Your task to perform on an android device: Open CNN.com Image 0: 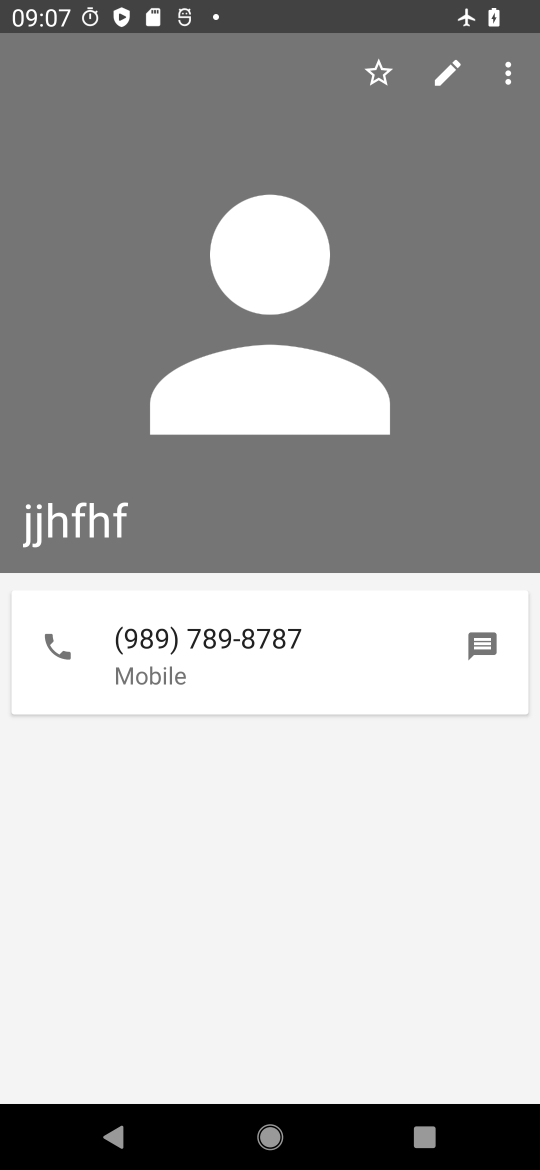
Step 0: press home button
Your task to perform on an android device: Open CNN.com Image 1: 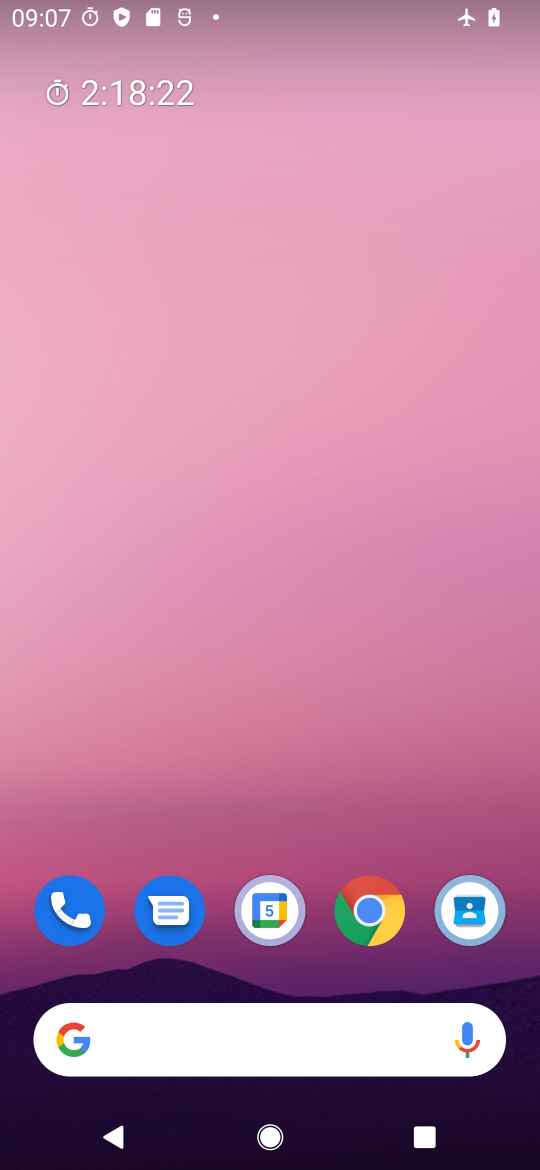
Step 1: drag from (324, 1022) to (490, 151)
Your task to perform on an android device: Open CNN.com Image 2: 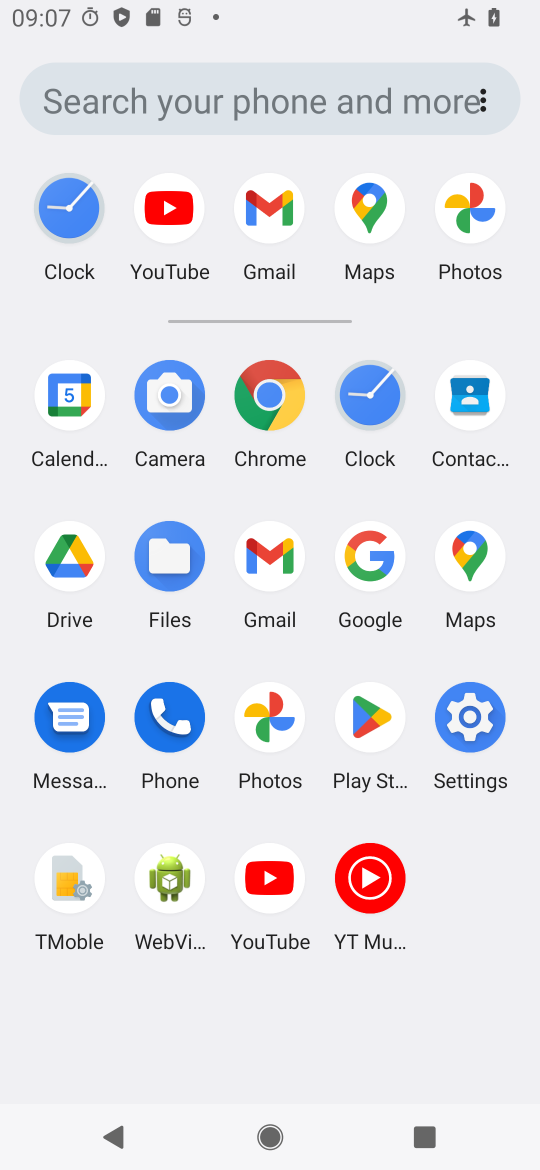
Step 2: click (250, 402)
Your task to perform on an android device: Open CNN.com Image 3: 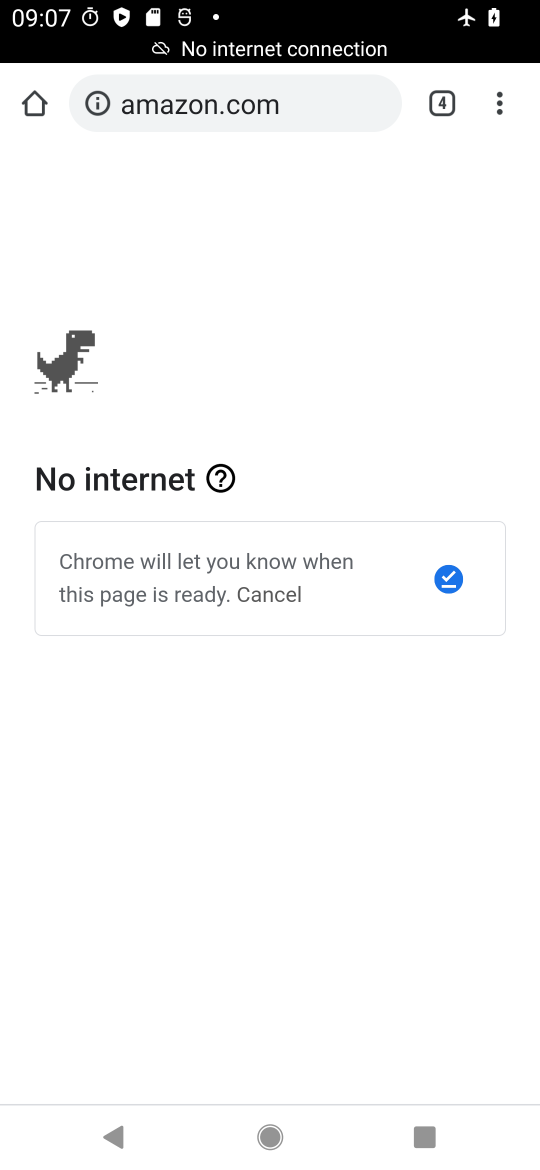
Step 3: click (456, 1)
Your task to perform on an android device: Open CNN.com Image 4: 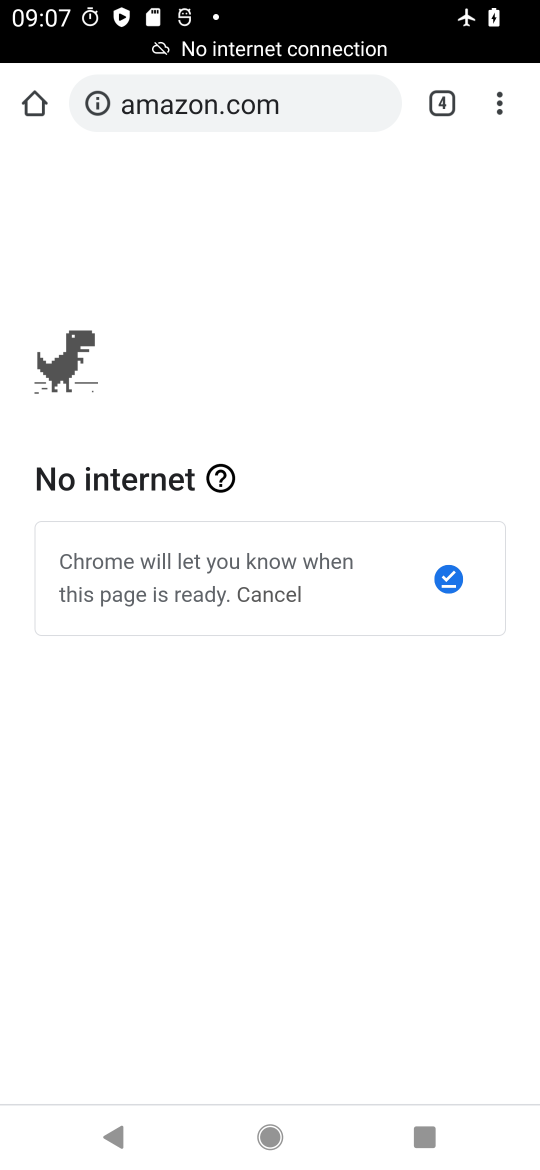
Step 4: press home button
Your task to perform on an android device: Open CNN.com Image 5: 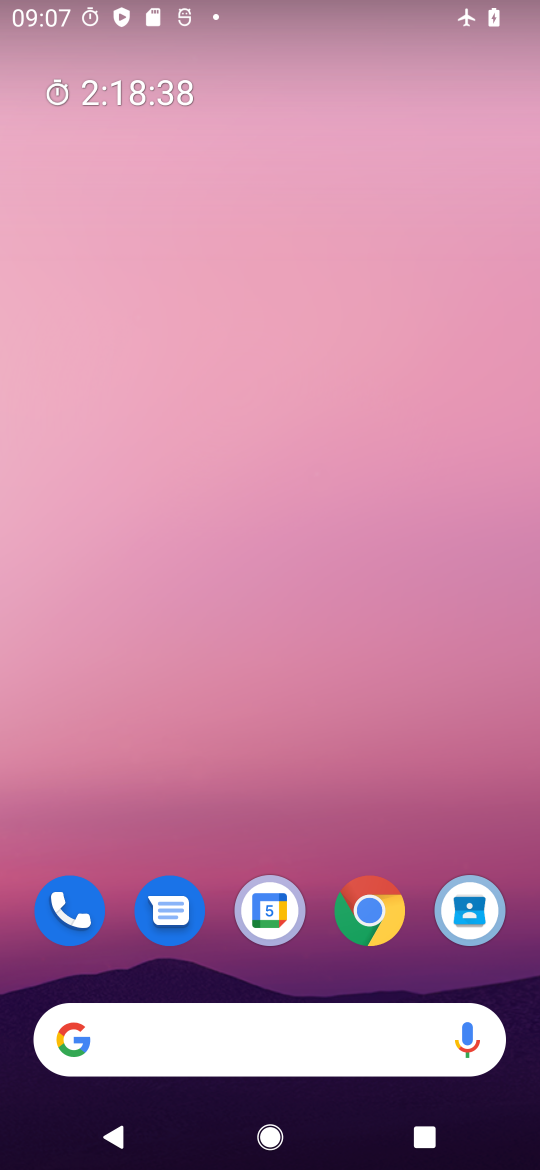
Step 5: drag from (265, 1041) to (283, 254)
Your task to perform on an android device: Open CNN.com Image 6: 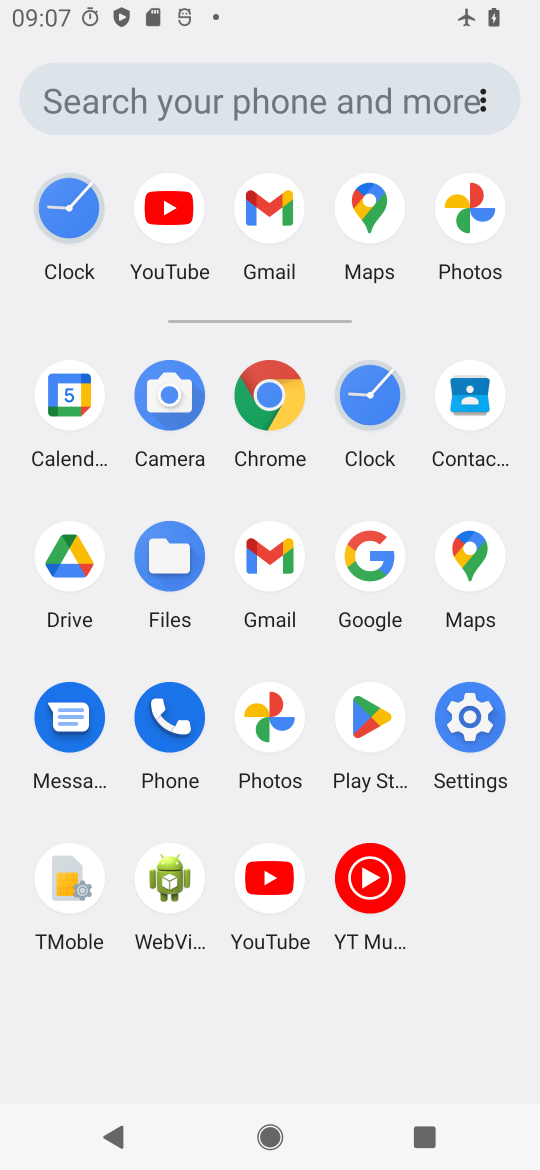
Step 6: click (478, 729)
Your task to perform on an android device: Open CNN.com Image 7: 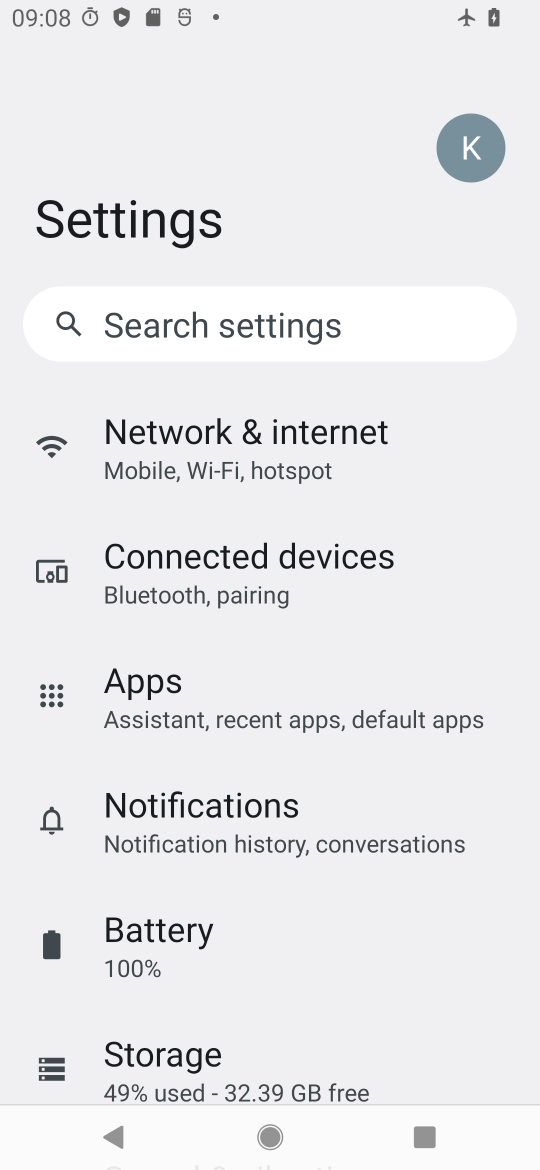
Step 7: click (274, 405)
Your task to perform on an android device: Open CNN.com Image 8: 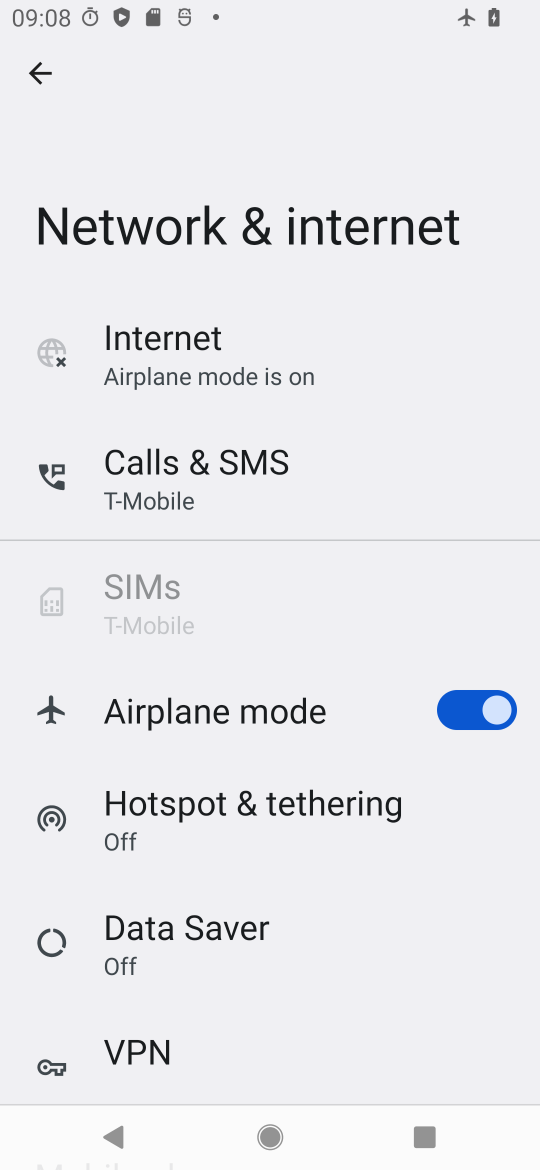
Step 8: click (473, 698)
Your task to perform on an android device: Open CNN.com Image 9: 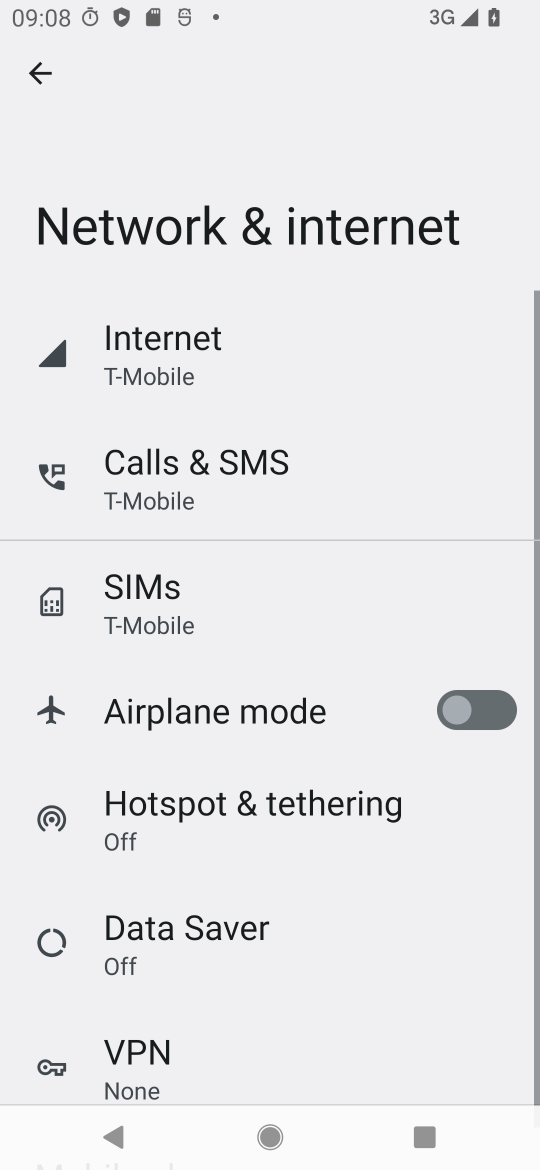
Step 9: task complete